Your task to perform on an android device: Open ESPN.com Image 0: 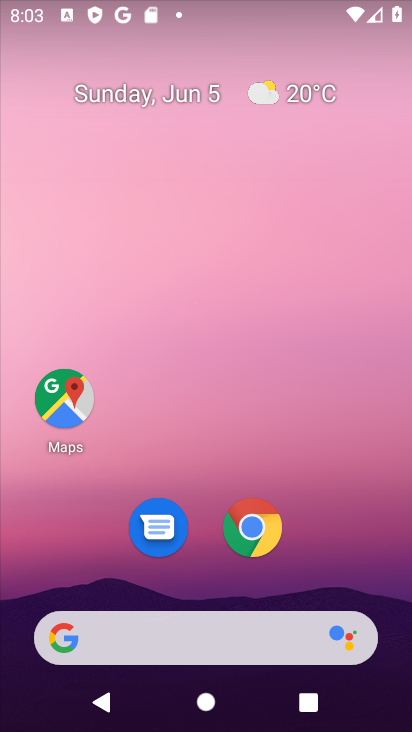
Step 0: click (269, 542)
Your task to perform on an android device: Open ESPN.com Image 1: 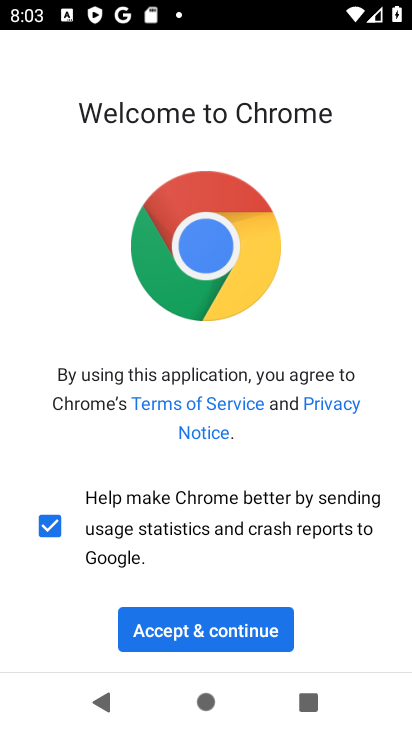
Step 1: click (178, 635)
Your task to perform on an android device: Open ESPN.com Image 2: 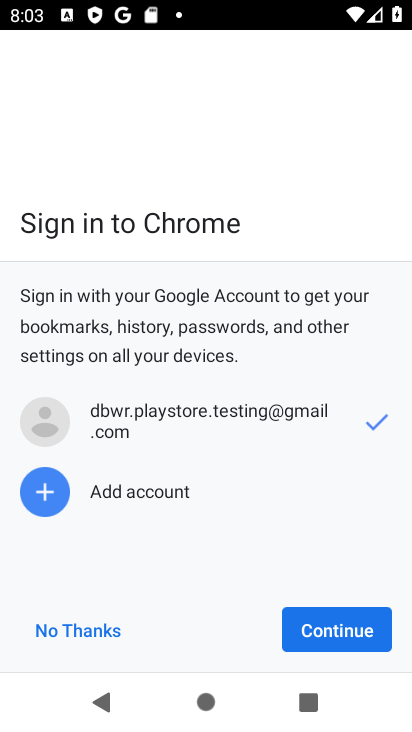
Step 2: click (353, 626)
Your task to perform on an android device: Open ESPN.com Image 3: 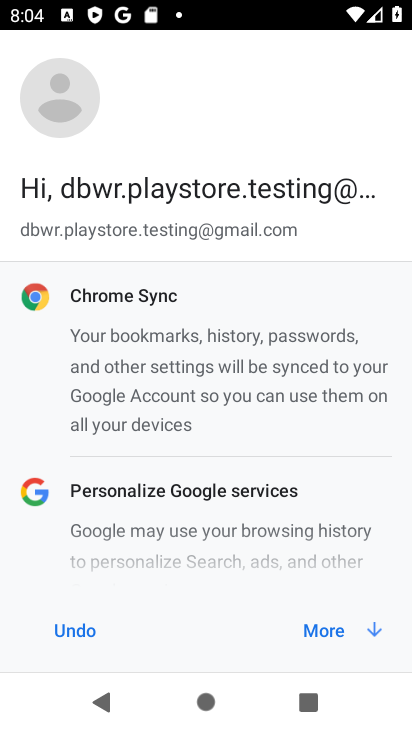
Step 3: click (353, 626)
Your task to perform on an android device: Open ESPN.com Image 4: 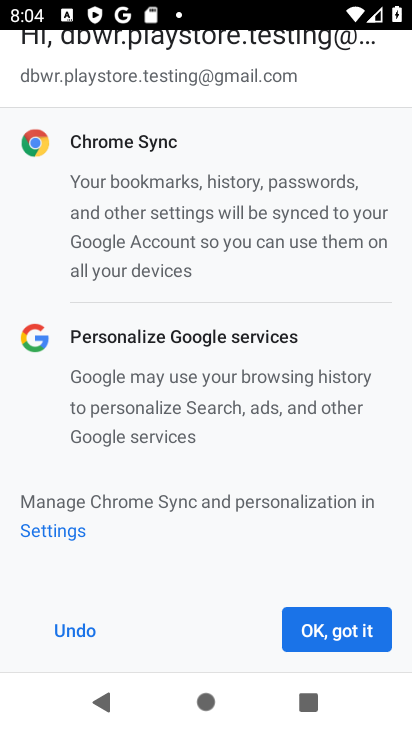
Step 4: click (353, 626)
Your task to perform on an android device: Open ESPN.com Image 5: 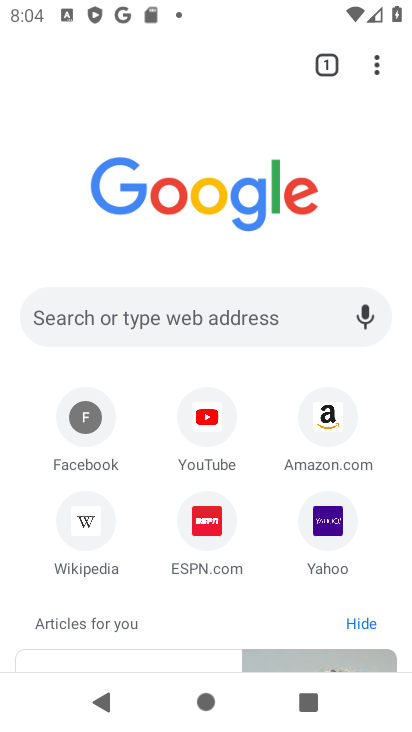
Step 5: click (214, 540)
Your task to perform on an android device: Open ESPN.com Image 6: 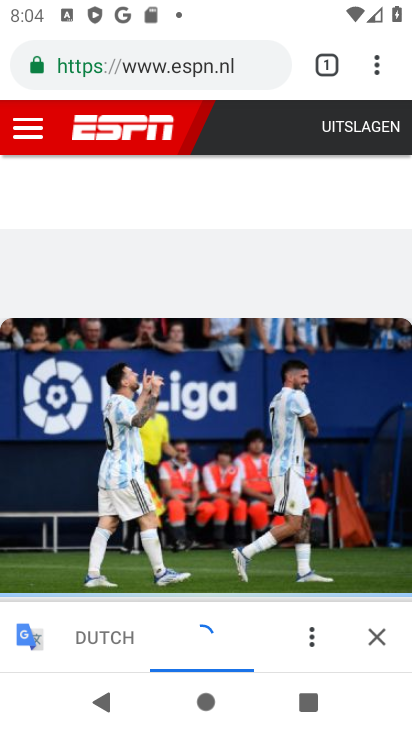
Step 6: task complete